Your task to perform on an android device: View the shopping cart on newegg. Search for "razer blade" on newegg, select the first entry, add it to the cart, then select checkout. Image 0: 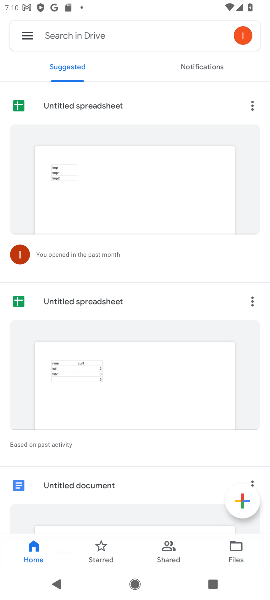
Step 0: press home button
Your task to perform on an android device: View the shopping cart on newegg. Search for "razer blade" on newegg, select the first entry, add it to the cart, then select checkout. Image 1: 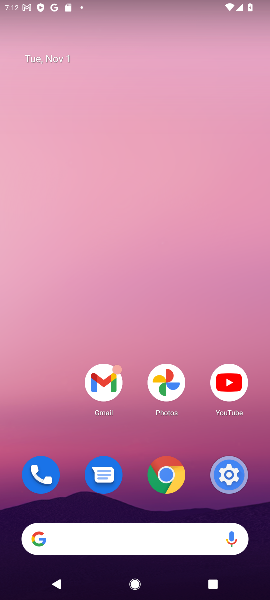
Step 1: click (120, 532)
Your task to perform on an android device: View the shopping cart on newegg. Search for "razer blade" on newegg, select the first entry, add it to the cart, then select checkout. Image 2: 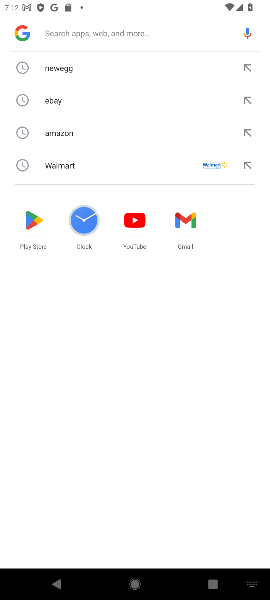
Step 2: click (110, 535)
Your task to perform on an android device: View the shopping cart on newegg. Search for "razer blade" on newegg, select the first entry, add it to the cart, then select checkout. Image 3: 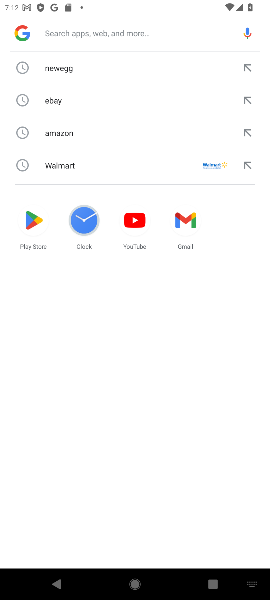
Step 3: type "newegg"
Your task to perform on an android device: View the shopping cart on newegg. Search for "razer blade" on newegg, select the first entry, add it to the cart, then select checkout. Image 4: 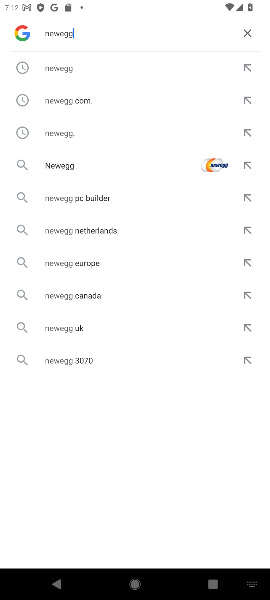
Step 4: click (131, 167)
Your task to perform on an android device: View the shopping cart on newegg. Search for "razer blade" on newegg, select the first entry, add it to the cart, then select checkout. Image 5: 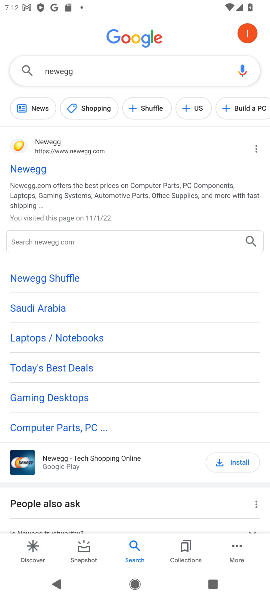
Step 5: click (32, 167)
Your task to perform on an android device: View the shopping cart on newegg. Search for "razer blade" on newegg, select the first entry, add it to the cart, then select checkout. Image 6: 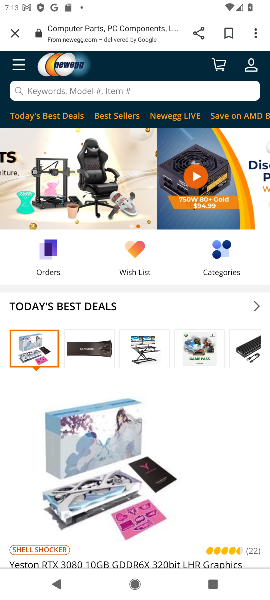
Step 6: click (216, 62)
Your task to perform on an android device: View the shopping cart on newegg. Search for "razer blade" on newegg, select the first entry, add it to the cart, then select checkout. Image 7: 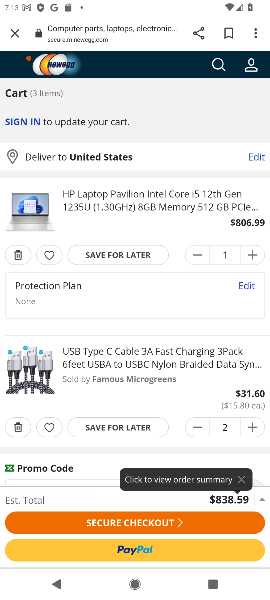
Step 7: click (17, 263)
Your task to perform on an android device: View the shopping cart on newegg. Search for "razer blade" on newegg, select the first entry, add it to the cart, then select checkout. Image 8: 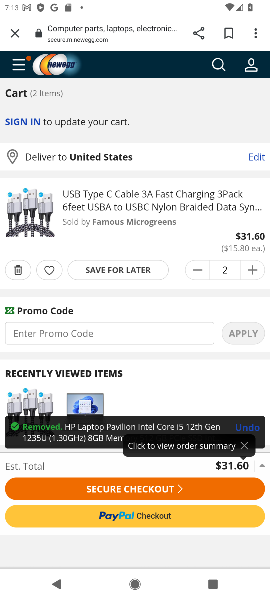
Step 8: click (15, 267)
Your task to perform on an android device: View the shopping cart on newegg. Search for "razer blade" on newegg, select the first entry, add it to the cart, then select checkout. Image 9: 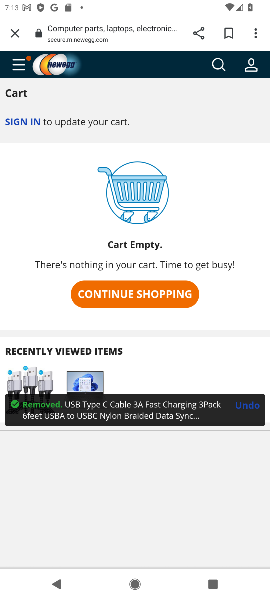
Step 9: click (219, 61)
Your task to perform on an android device: View the shopping cart on newegg. Search for "razer blade" on newegg, select the first entry, add it to the cart, then select checkout. Image 10: 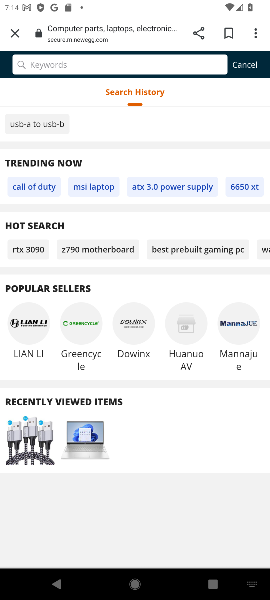
Step 10: type "razer blade"
Your task to perform on an android device: View the shopping cart on newegg. Search for "razer blade" on newegg, select the first entry, add it to the cart, then select checkout. Image 11: 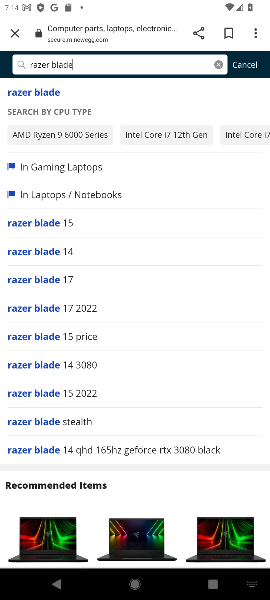
Step 11: click (42, 95)
Your task to perform on an android device: View the shopping cart on newegg. Search for "razer blade" on newegg, select the first entry, add it to the cart, then select checkout. Image 12: 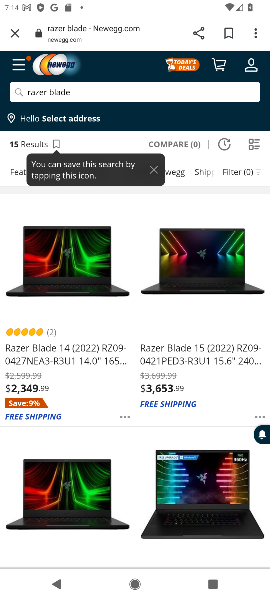
Step 12: click (61, 289)
Your task to perform on an android device: View the shopping cart on newegg. Search for "razer blade" on newegg, select the first entry, add it to the cart, then select checkout. Image 13: 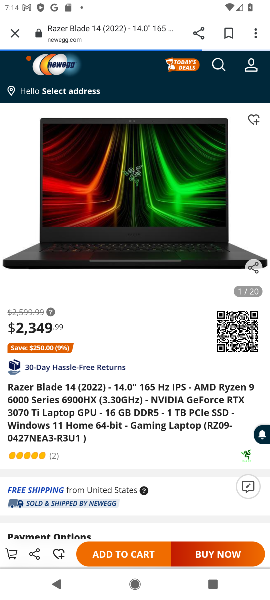
Step 13: click (133, 556)
Your task to perform on an android device: View the shopping cart on newegg. Search for "razer blade" on newegg, select the first entry, add it to the cart, then select checkout. Image 14: 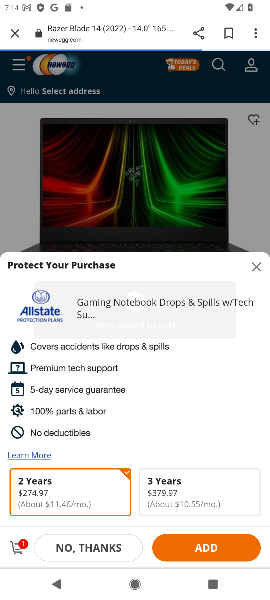
Step 14: click (105, 546)
Your task to perform on an android device: View the shopping cart on newegg. Search for "razer blade" on newegg, select the first entry, add it to the cart, then select checkout. Image 15: 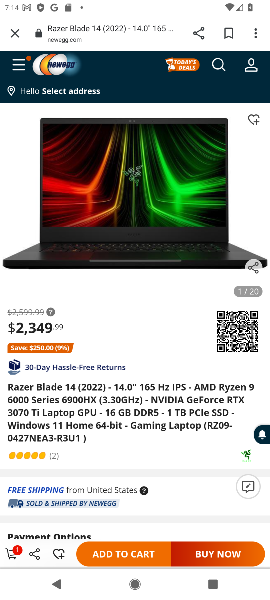
Step 15: task complete